Your task to perform on an android device: turn vacation reply on in the gmail app Image 0: 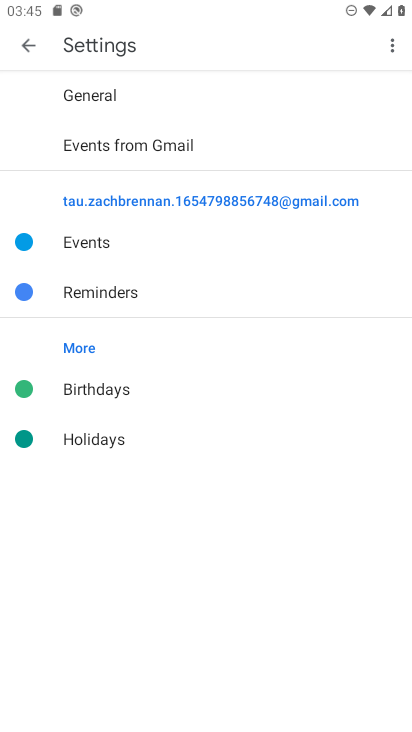
Step 0: press home button
Your task to perform on an android device: turn vacation reply on in the gmail app Image 1: 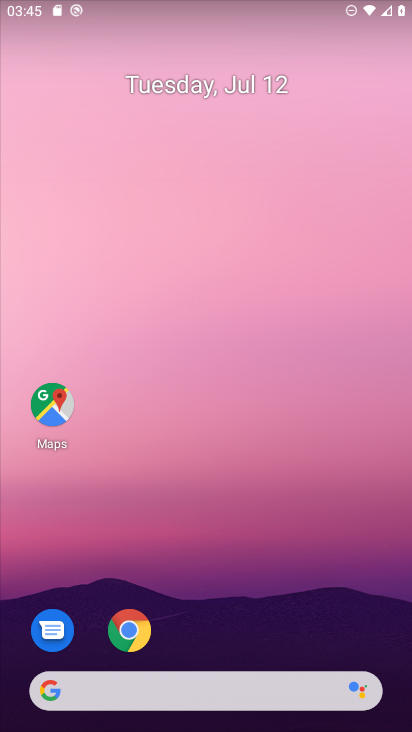
Step 1: drag from (352, 635) to (311, 251)
Your task to perform on an android device: turn vacation reply on in the gmail app Image 2: 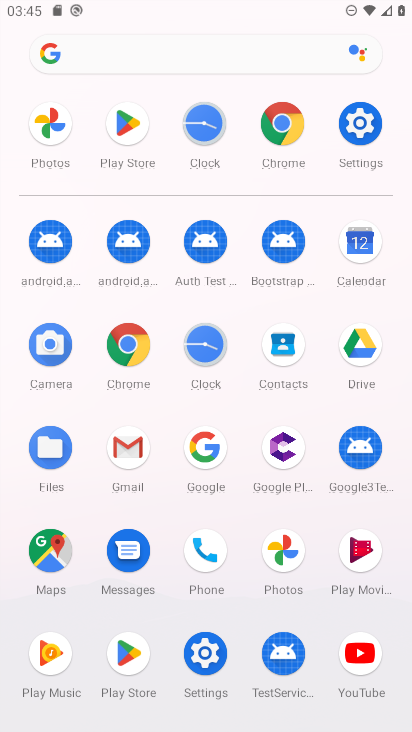
Step 2: click (125, 451)
Your task to perform on an android device: turn vacation reply on in the gmail app Image 3: 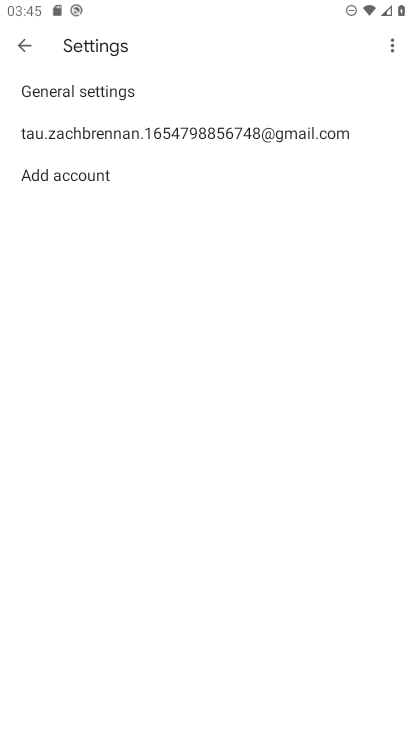
Step 3: click (156, 134)
Your task to perform on an android device: turn vacation reply on in the gmail app Image 4: 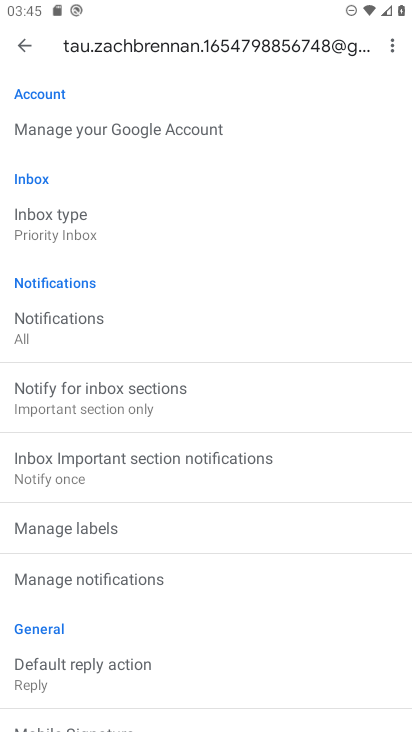
Step 4: drag from (296, 559) to (308, 217)
Your task to perform on an android device: turn vacation reply on in the gmail app Image 5: 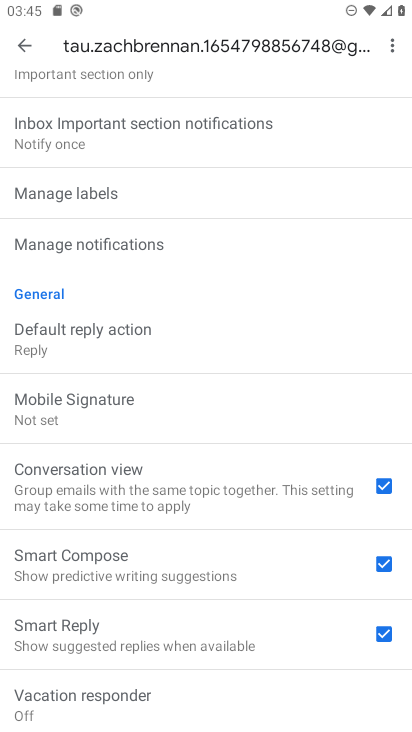
Step 5: drag from (325, 645) to (327, 203)
Your task to perform on an android device: turn vacation reply on in the gmail app Image 6: 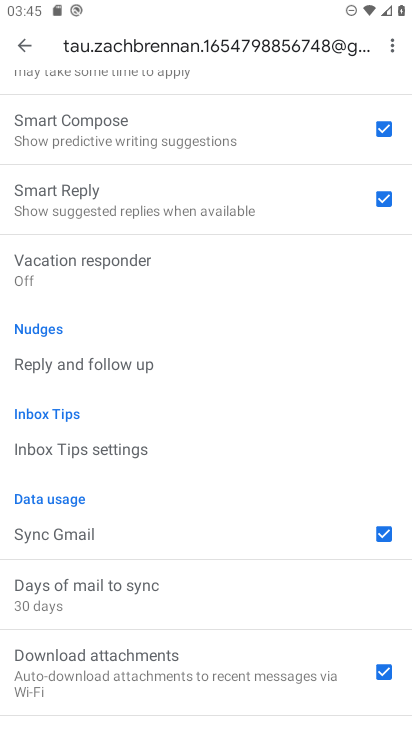
Step 6: click (81, 259)
Your task to perform on an android device: turn vacation reply on in the gmail app Image 7: 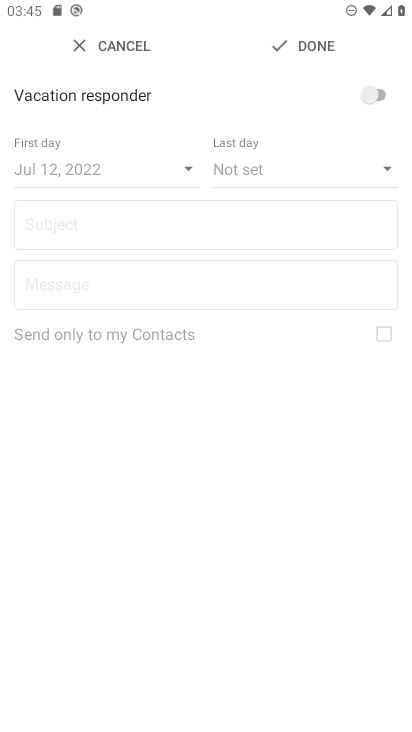
Step 7: click (382, 90)
Your task to perform on an android device: turn vacation reply on in the gmail app Image 8: 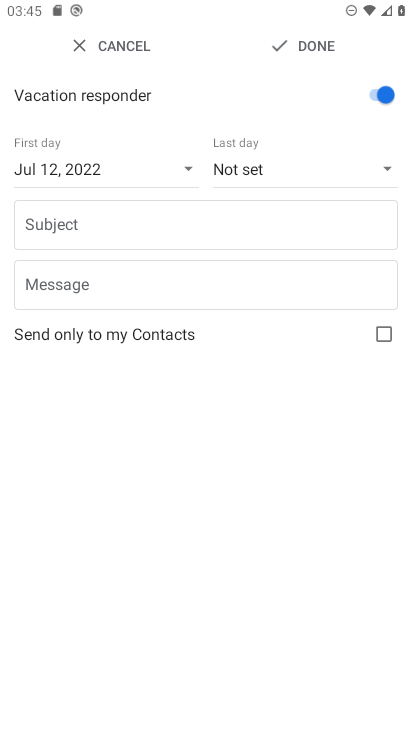
Step 8: click (311, 45)
Your task to perform on an android device: turn vacation reply on in the gmail app Image 9: 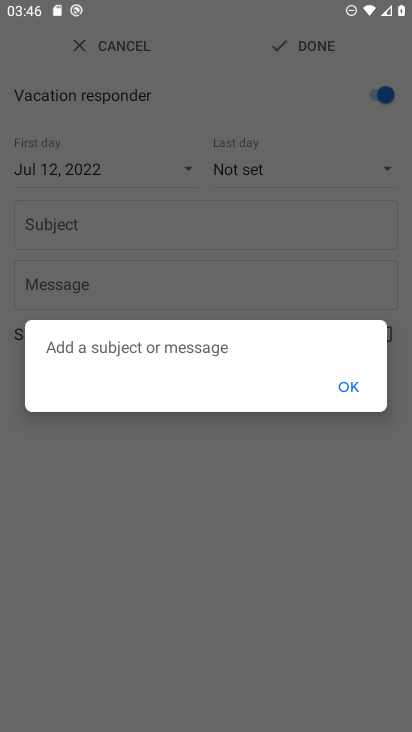
Step 9: click (345, 385)
Your task to perform on an android device: turn vacation reply on in the gmail app Image 10: 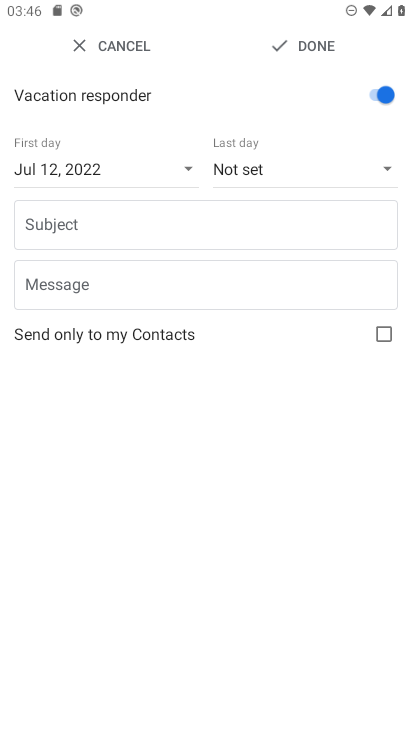
Step 10: task complete